Your task to perform on an android device: add a contact Image 0: 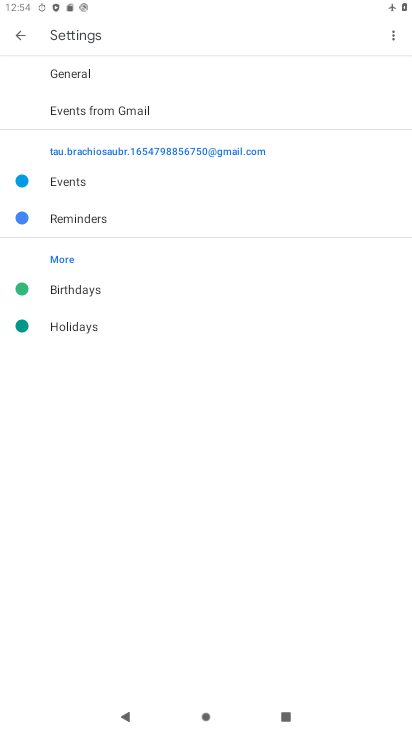
Step 0: press home button
Your task to perform on an android device: add a contact Image 1: 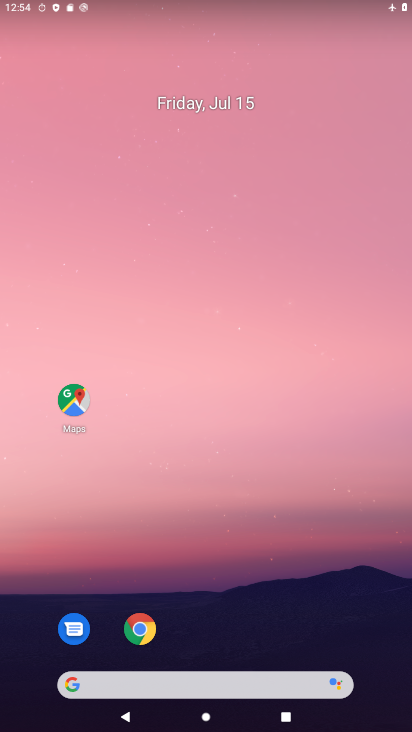
Step 1: drag from (222, 650) to (224, 228)
Your task to perform on an android device: add a contact Image 2: 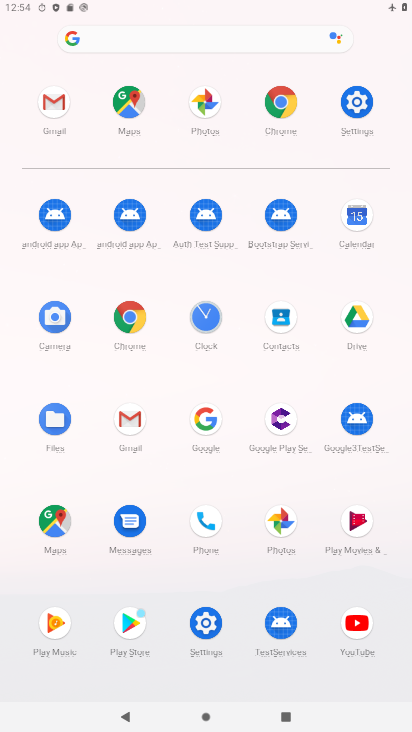
Step 2: click (276, 334)
Your task to perform on an android device: add a contact Image 3: 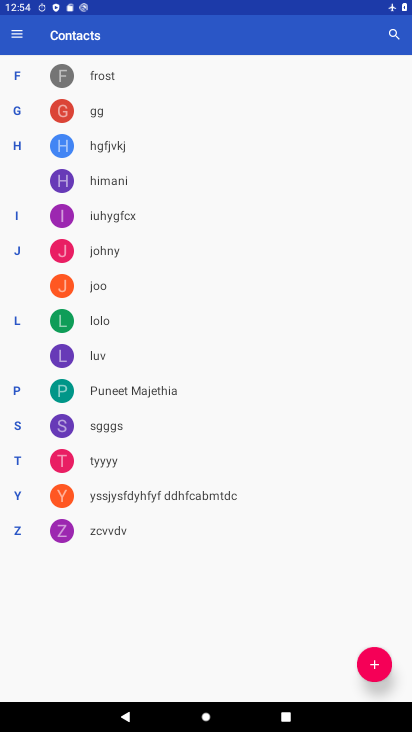
Step 3: click (381, 656)
Your task to perform on an android device: add a contact Image 4: 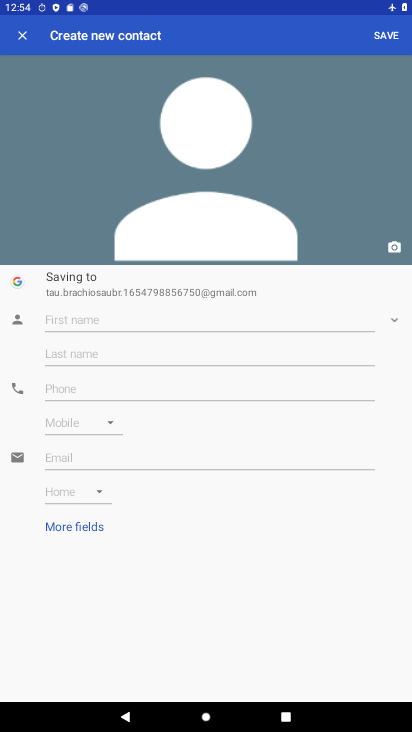
Step 4: click (137, 325)
Your task to perform on an android device: add a contact Image 5: 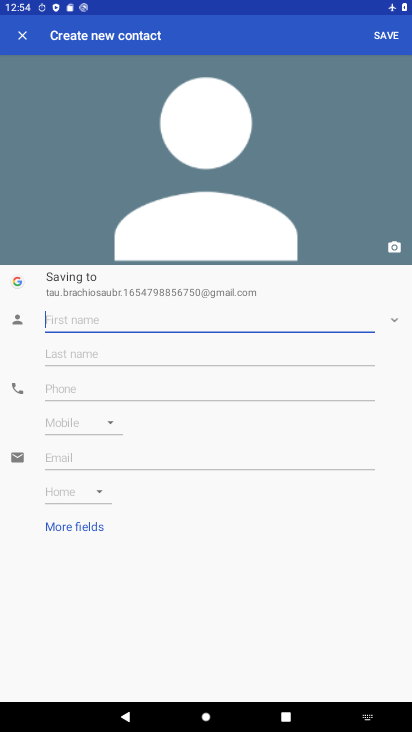
Step 5: type "fluid"
Your task to perform on an android device: add a contact Image 6: 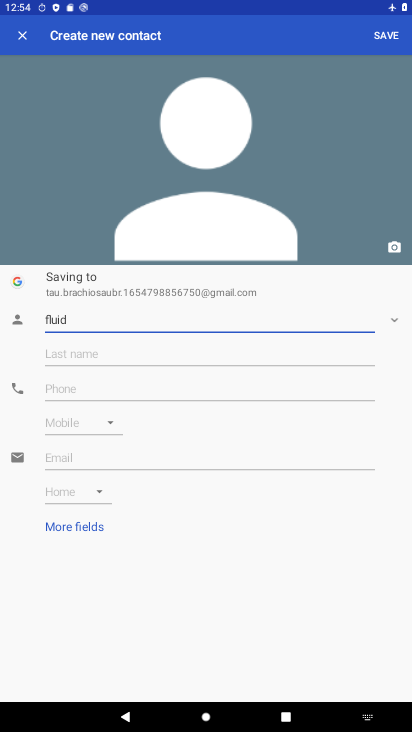
Step 6: click (382, 30)
Your task to perform on an android device: add a contact Image 7: 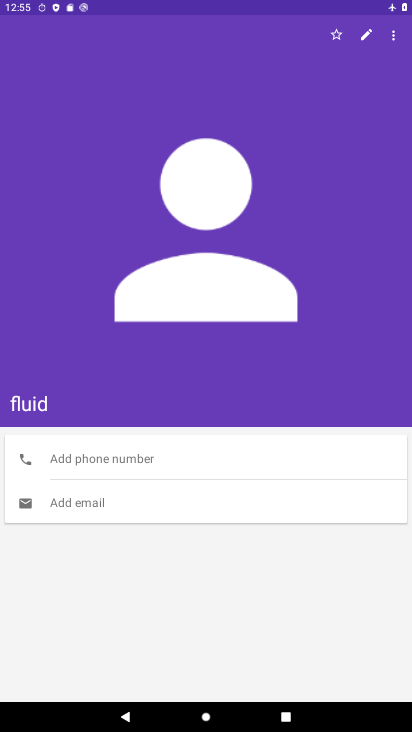
Step 7: task complete